Your task to perform on an android device: Search for hotels in London Image 0: 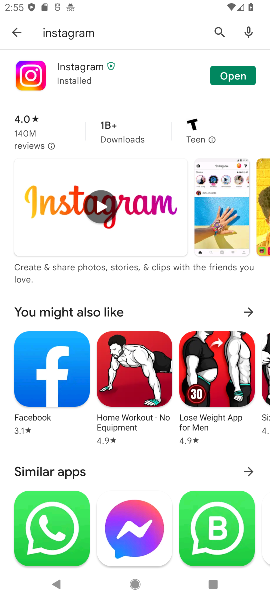
Step 0: press home button
Your task to perform on an android device: Search for hotels in London Image 1: 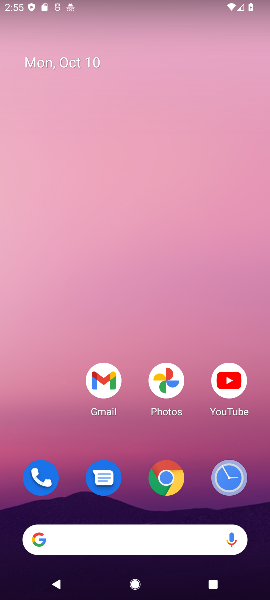
Step 1: click (171, 469)
Your task to perform on an android device: Search for hotels in London Image 2: 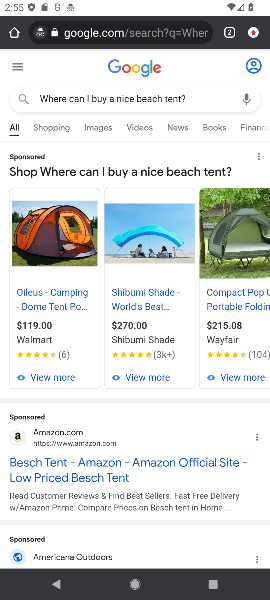
Step 2: click (150, 29)
Your task to perform on an android device: Search for hotels in London Image 3: 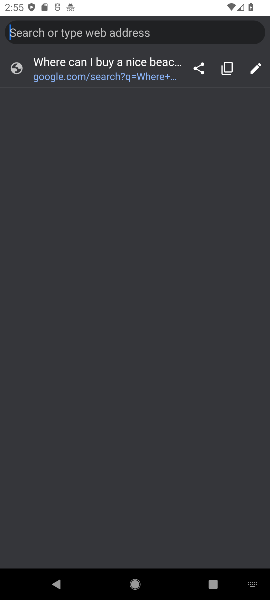
Step 3: type " hotels in London"
Your task to perform on an android device: Search for hotels in London Image 4: 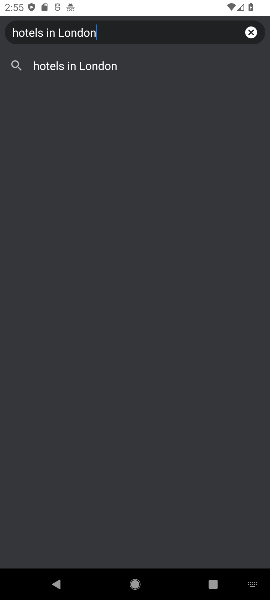
Step 4: click (80, 62)
Your task to perform on an android device: Search for hotels in London Image 5: 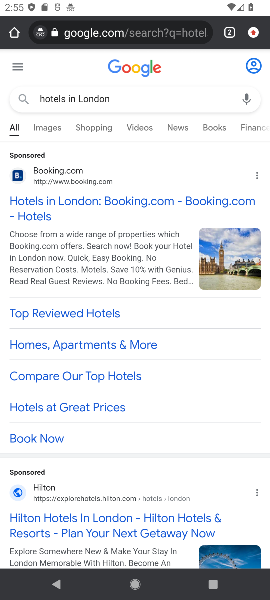
Step 5: task complete